Your task to perform on an android device: delete the emails in spam in the gmail app Image 0: 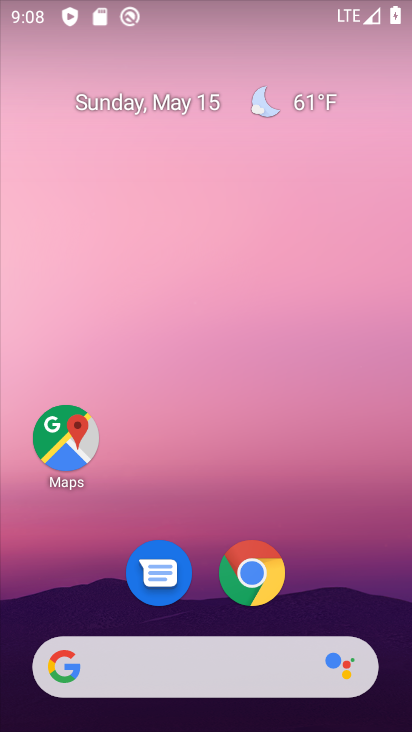
Step 0: drag from (17, 708) to (383, 206)
Your task to perform on an android device: delete the emails in spam in the gmail app Image 1: 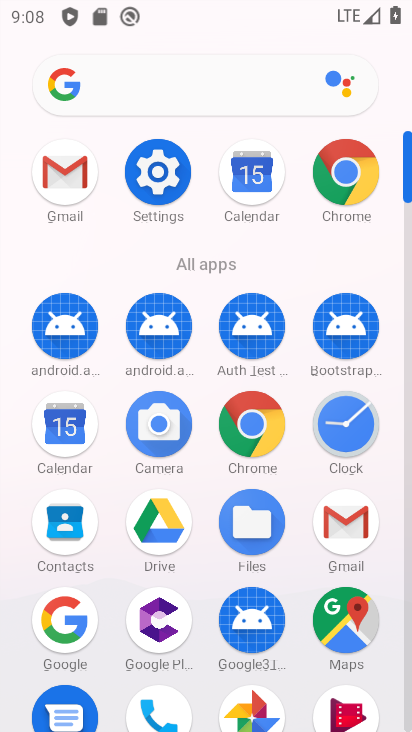
Step 1: click (327, 517)
Your task to perform on an android device: delete the emails in spam in the gmail app Image 2: 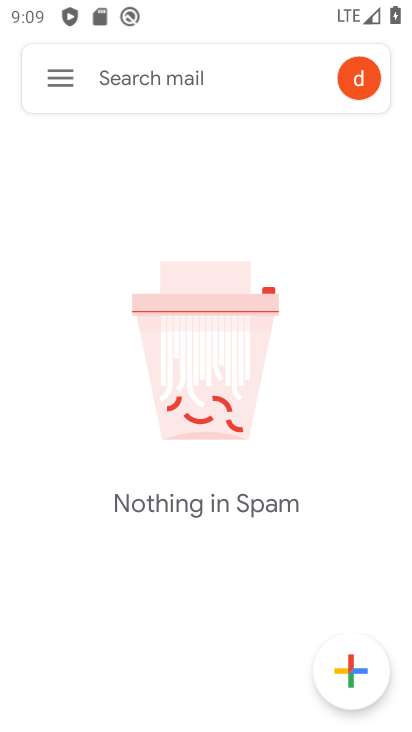
Step 2: click (47, 87)
Your task to perform on an android device: delete the emails in spam in the gmail app Image 3: 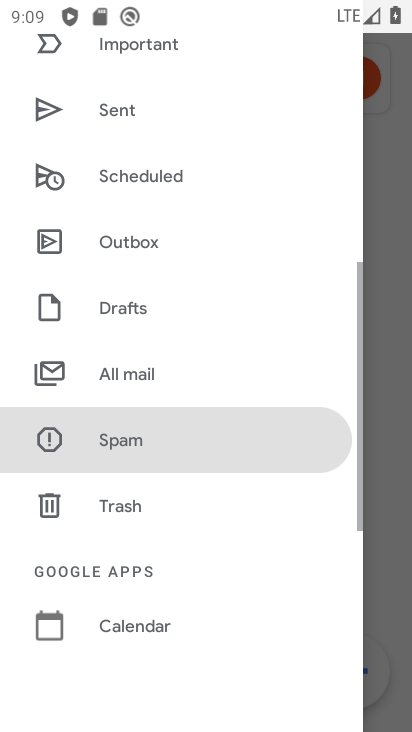
Step 3: click (83, 449)
Your task to perform on an android device: delete the emails in spam in the gmail app Image 4: 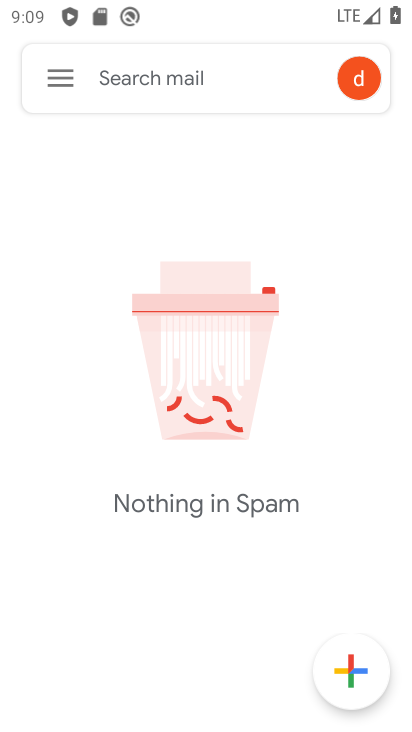
Step 4: task complete